Your task to perform on an android device: change alarm snooze length Image 0: 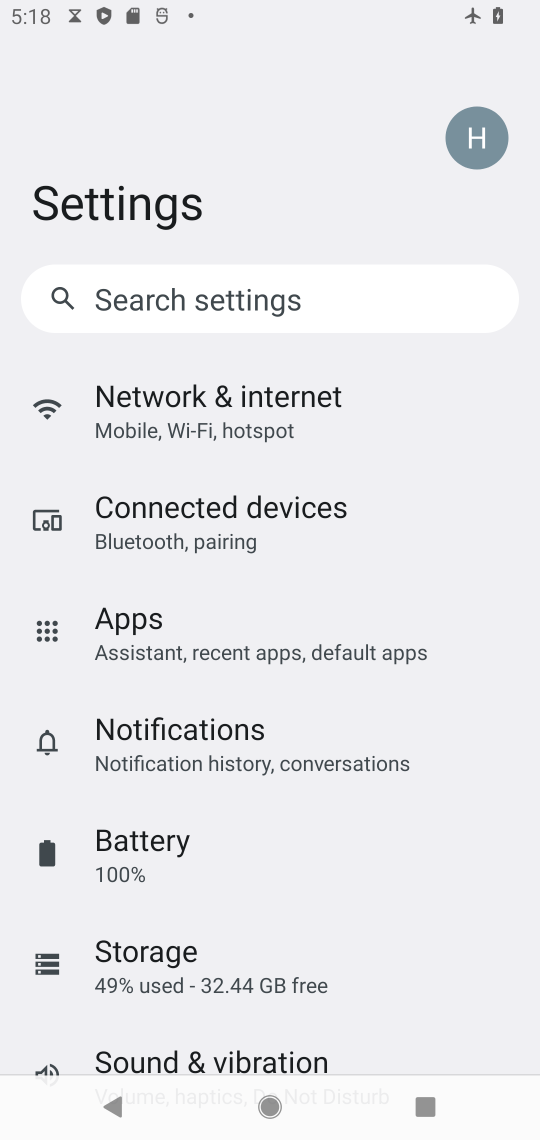
Step 0: press home button
Your task to perform on an android device: change alarm snooze length Image 1: 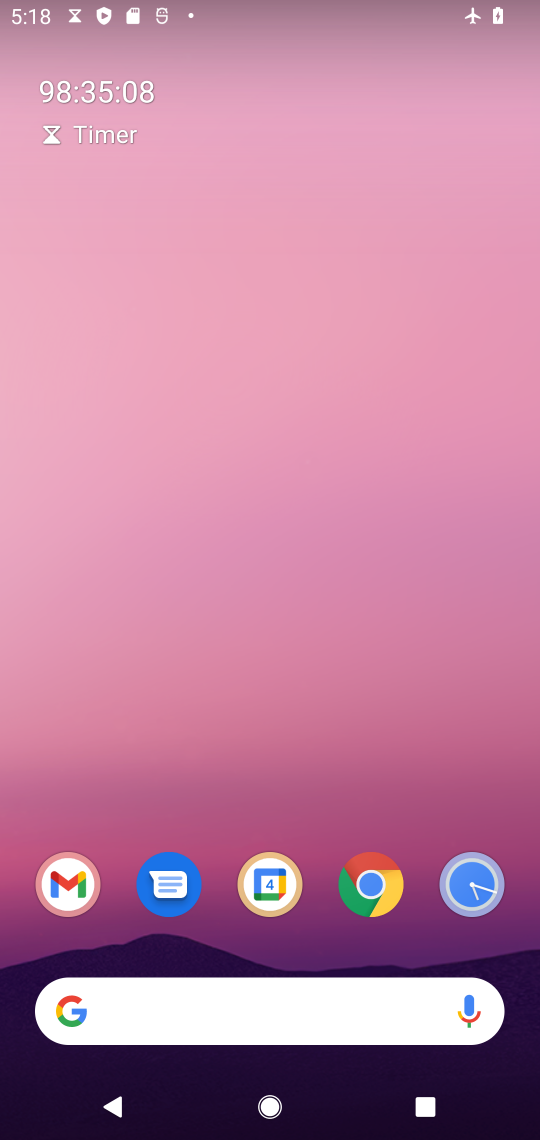
Step 1: drag from (208, 940) to (229, 160)
Your task to perform on an android device: change alarm snooze length Image 2: 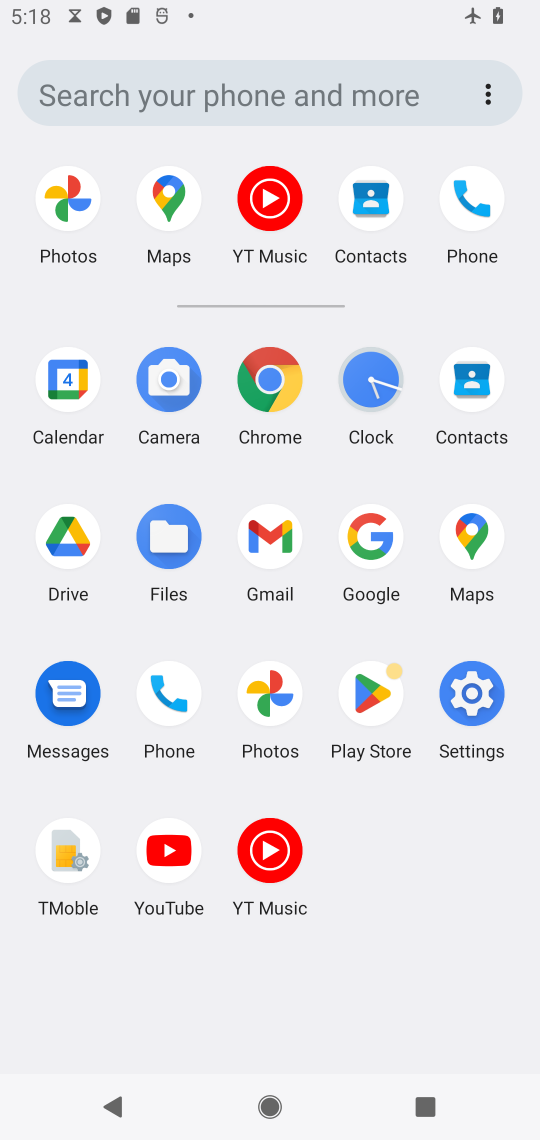
Step 2: click (391, 377)
Your task to perform on an android device: change alarm snooze length Image 3: 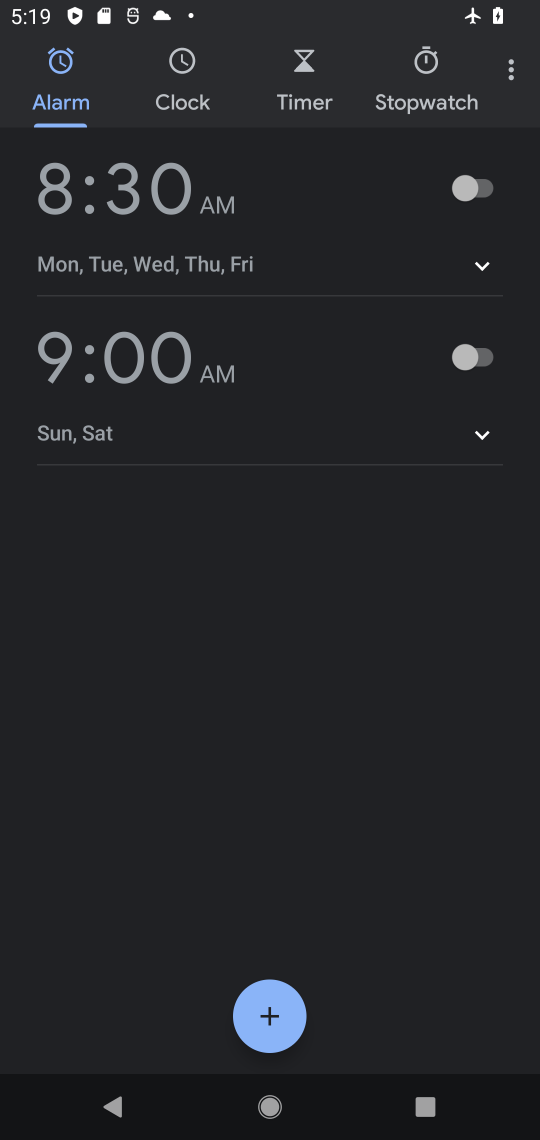
Step 3: click (513, 65)
Your task to perform on an android device: change alarm snooze length Image 4: 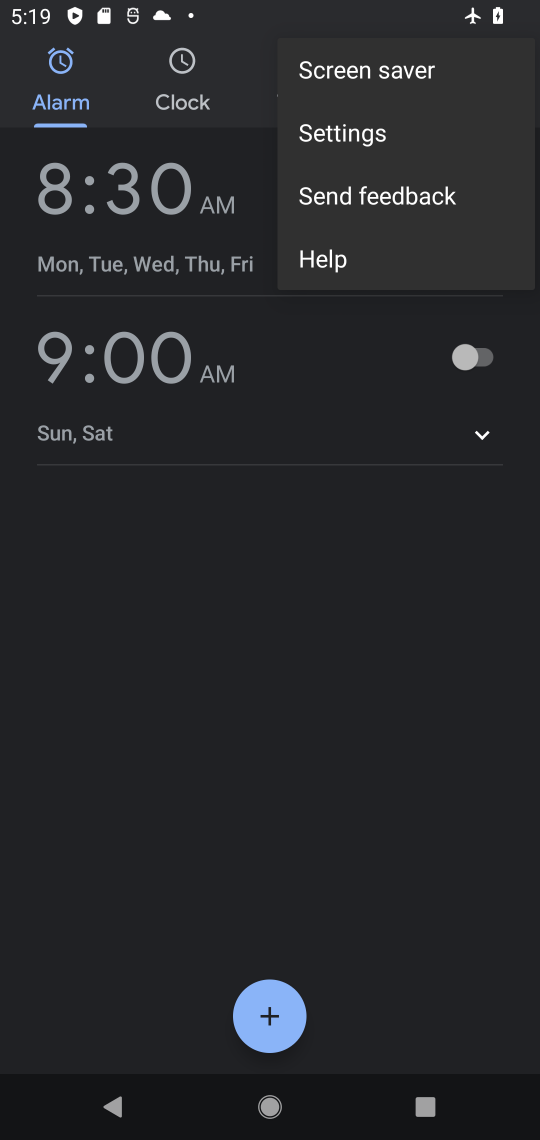
Step 4: click (357, 126)
Your task to perform on an android device: change alarm snooze length Image 5: 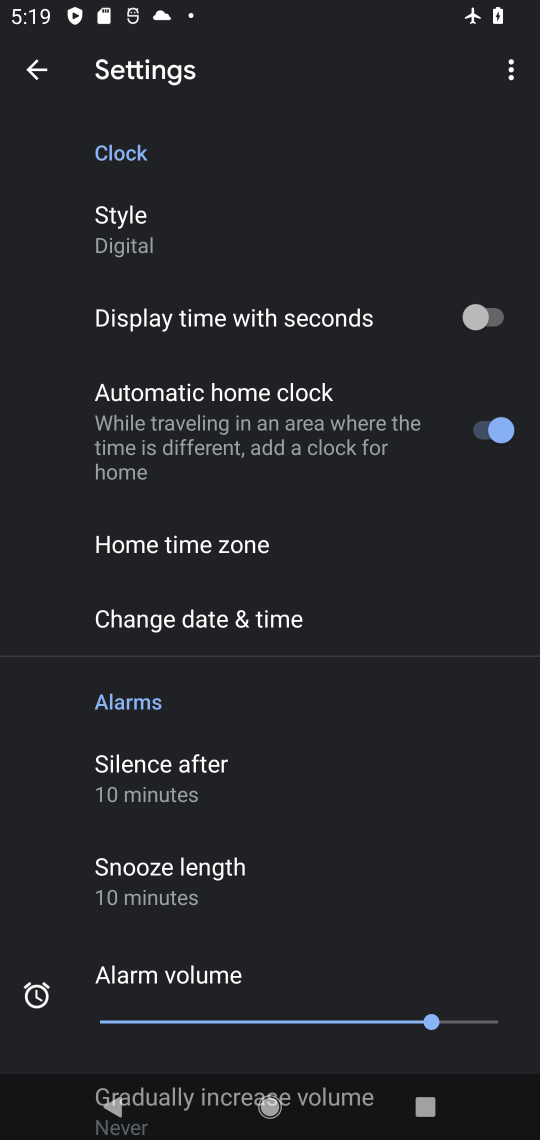
Step 5: click (237, 900)
Your task to perform on an android device: change alarm snooze length Image 6: 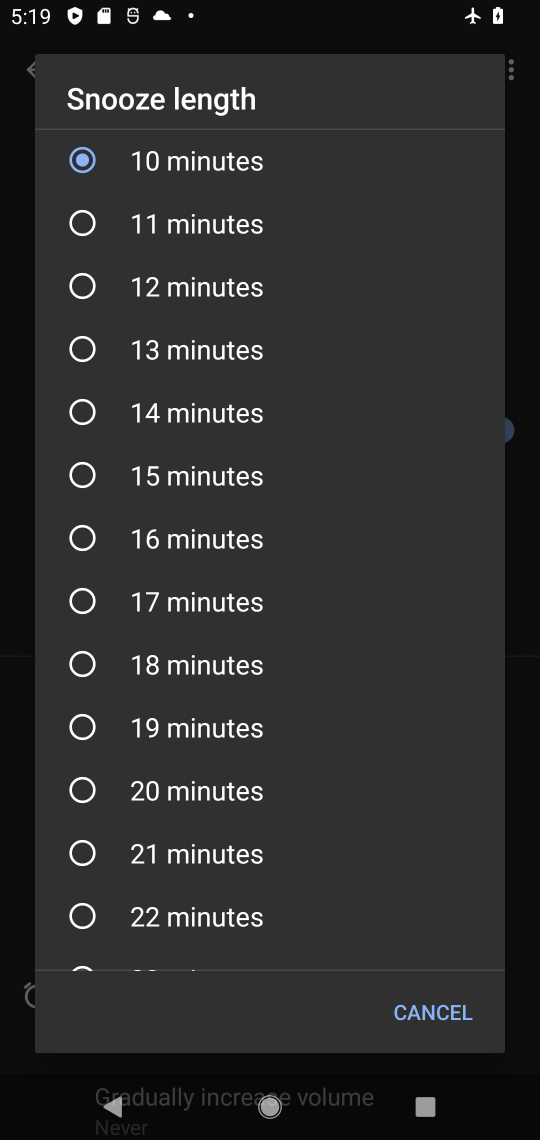
Step 6: click (201, 802)
Your task to perform on an android device: change alarm snooze length Image 7: 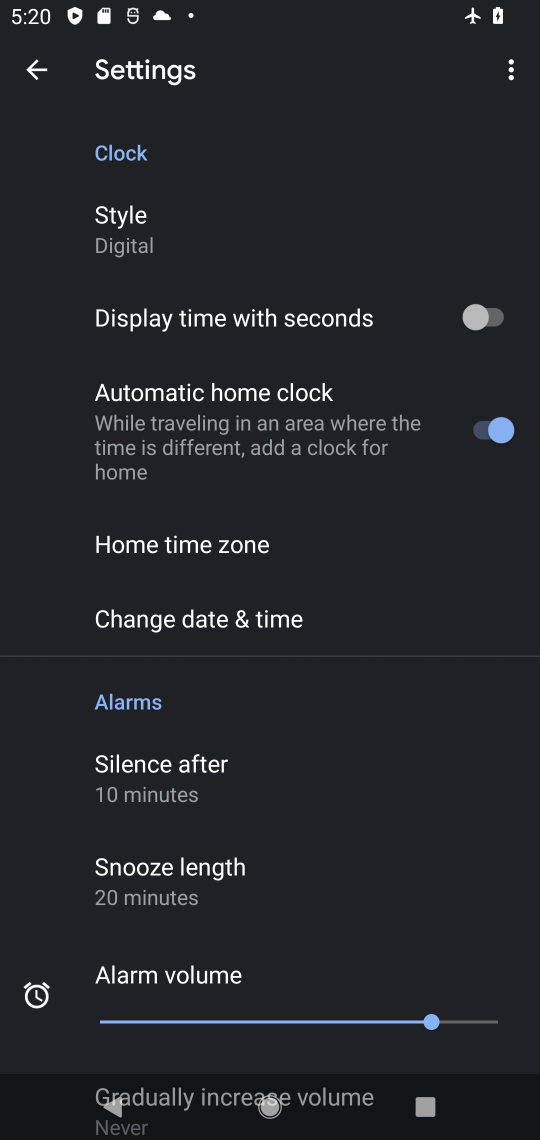
Step 7: task complete